Your task to perform on an android device: turn off priority inbox in the gmail app Image 0: 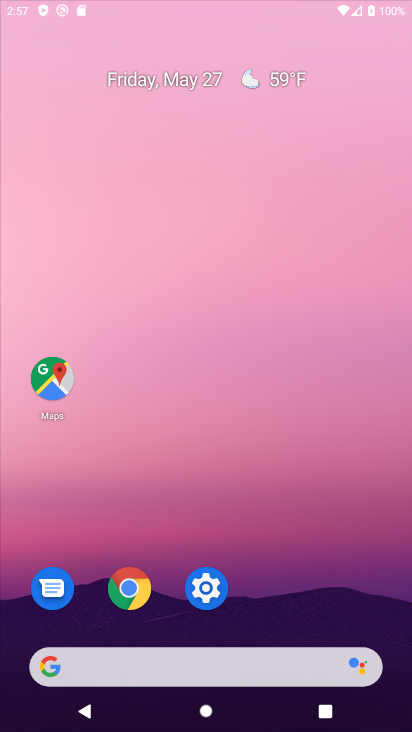
Step 0: click (191, 65)
Your task to perform on an android device: turn off priority inbox in the gmail app Image 1: 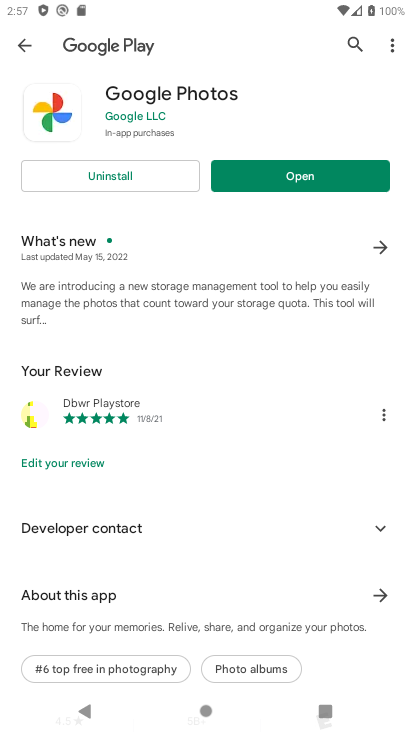
Step 1: press back button
Your task to perform on an android device: turn off priority inbox in the gmail app Image 2: 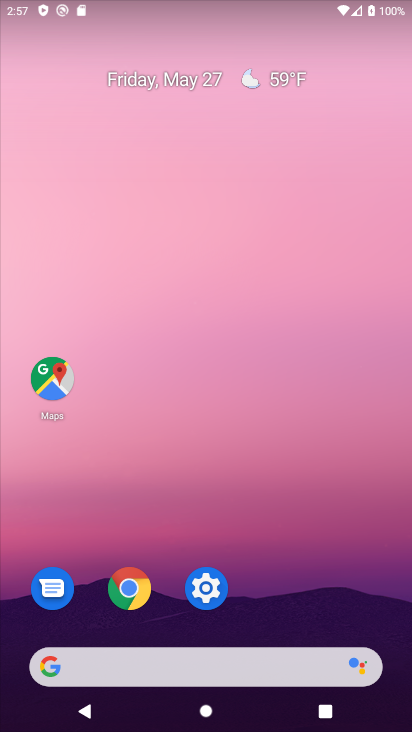
Step 2: drag from (275, 689) to (139, 12)
Your task to perform on an android device: turn off priority inbox in the gmail app Image 3: 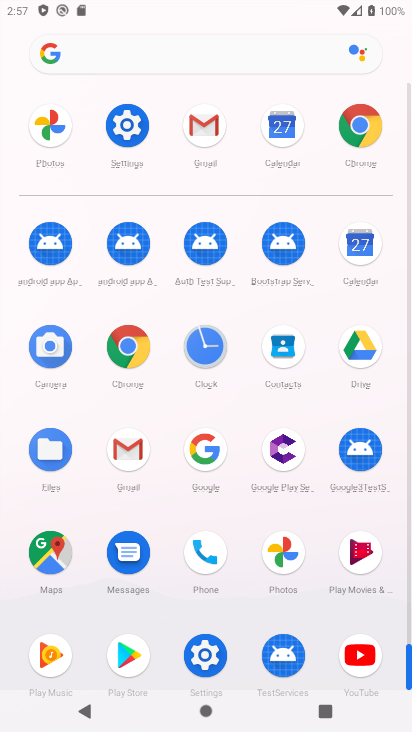
Step 3: click (129, 445)
Your task to perform on an android device: turn off priority inbox in the gmail app Image 4: 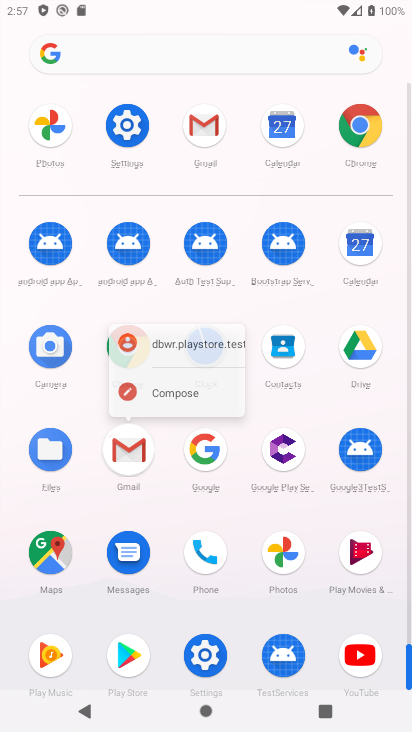
Step 4: click (129, 445)
Your task to perform on an android device: turn off priority inbox in the gmail app Image 5: 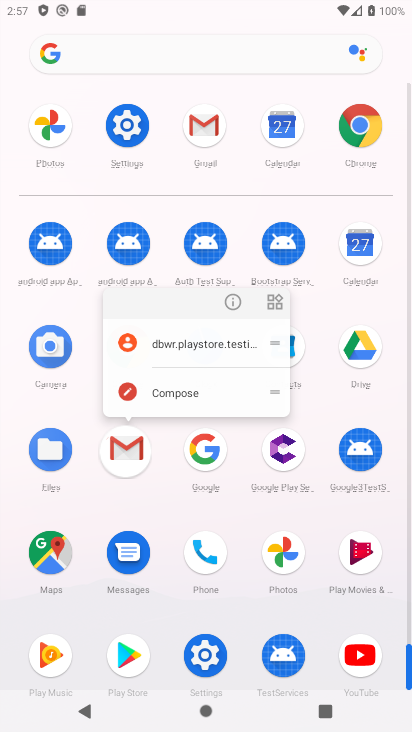
Step 5: click (125, 447)
Your task to perform on an android device: turn off priority inbox in the gmail app Image 6: 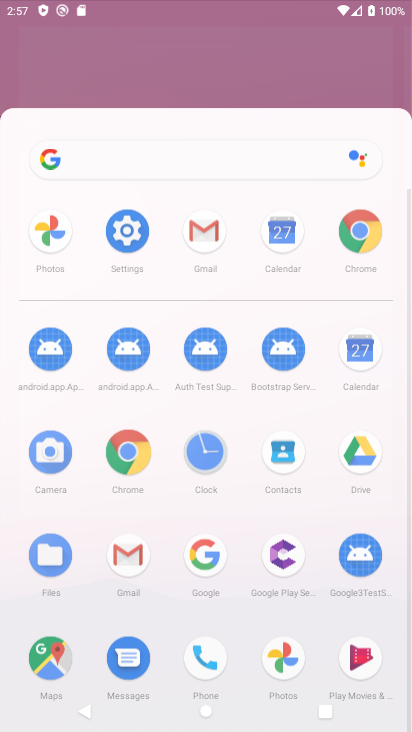
Step 6: click (121, 435)
Your task to perform on an android device: turn off priority inbox in the gmail app Image 7: 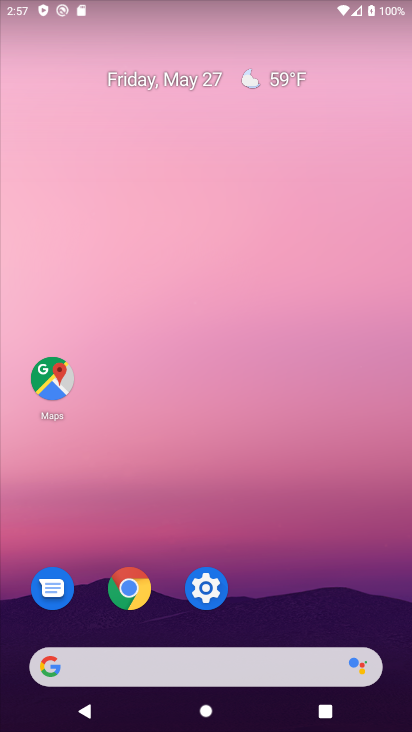
Step 7: click (124, 439)
Your task to perform on an android device: turn off priority inbox in the gmail app Image 8: 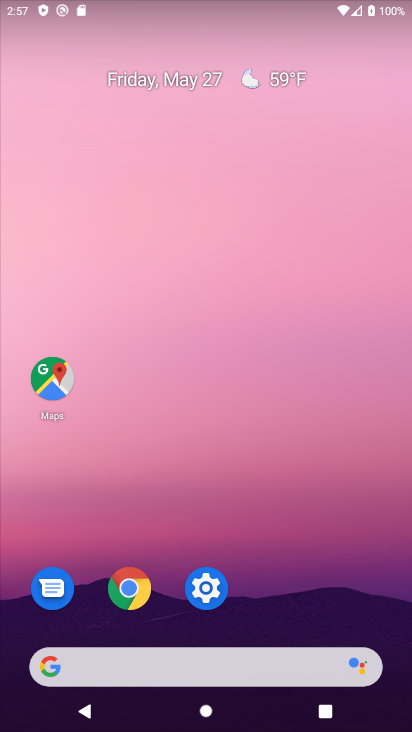
Step 8: press back button
Your task to perform on an android device: turn off priority inbox in the gmail app Image 9: 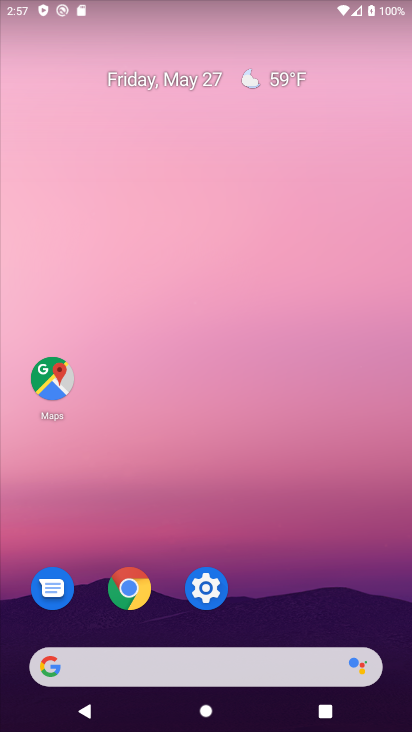
Step 9: drag from (303, 515) to (105, 101)
Your task to perform on an android device: turn off priority inbox in the gmail app Image 10: 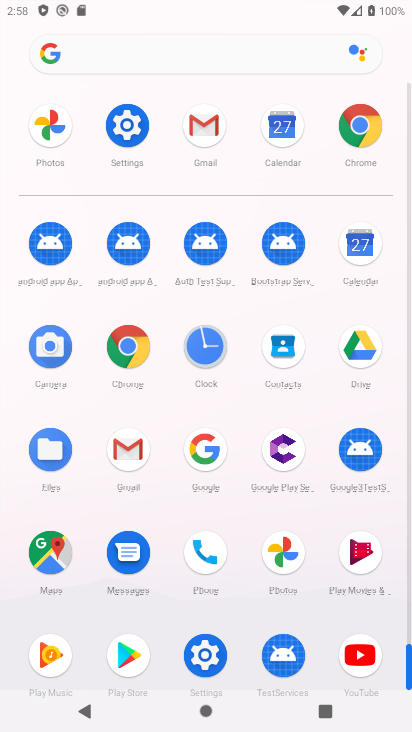
Step 10: click (123, 468)
Your task to perform on an android device: turn off priority inbox in the gmail app Image 11: 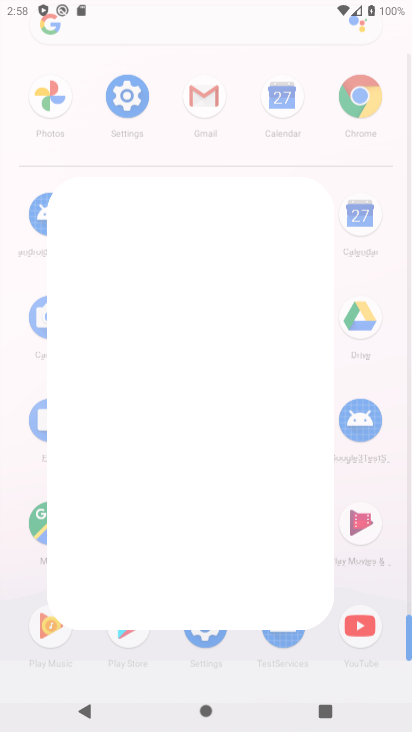
Step 11: click (123, 454)
Your task to perform on an android device: turn off priority inbox in the gmail app Image 12: 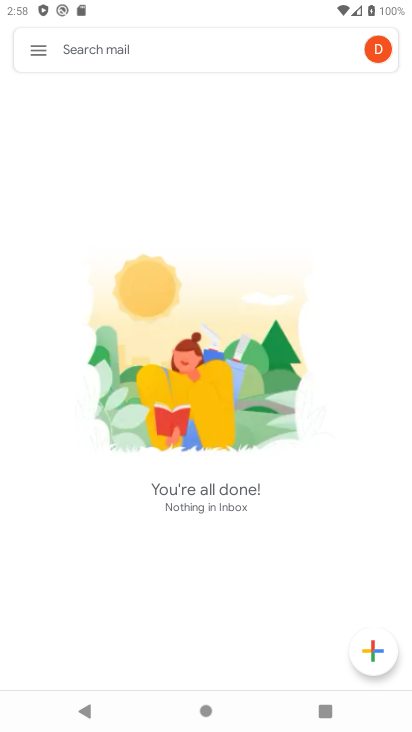
Step 12: click (125, 448)
Your task to perform on an android device: turn off priority inbox in the gmail app Image 13: 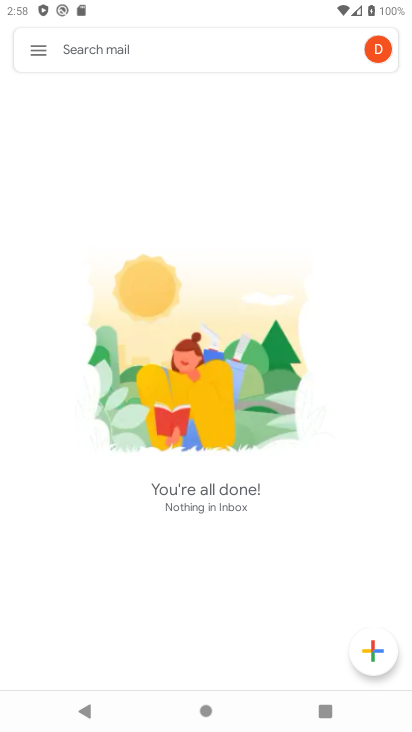
Step 13: click (36, 57)
Your task to perform on an android device: turn off priority inbox in the gmail app Image 14: 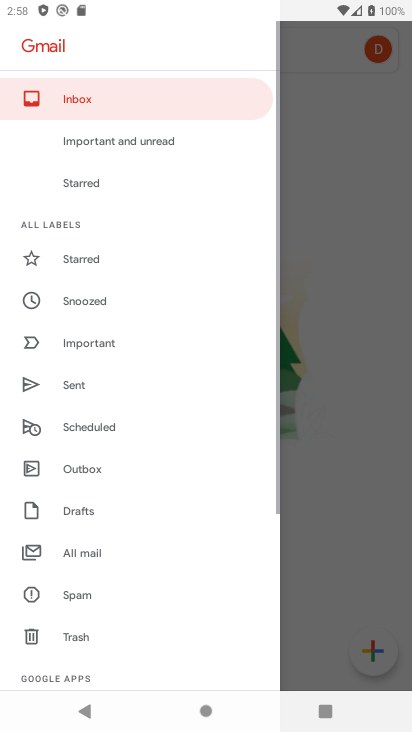
Step 14: click (42, 44)
Your task to perform on an android device: turn off priority inbox in the gmail app Image 15: 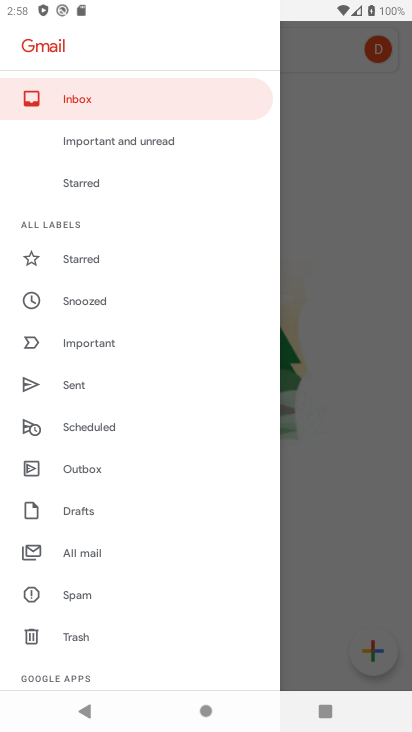
Step 15: drag from (58, 470) to (40, 188)
Your task to perform on an android device: turn off priority inbox in the gmail app Image 16: 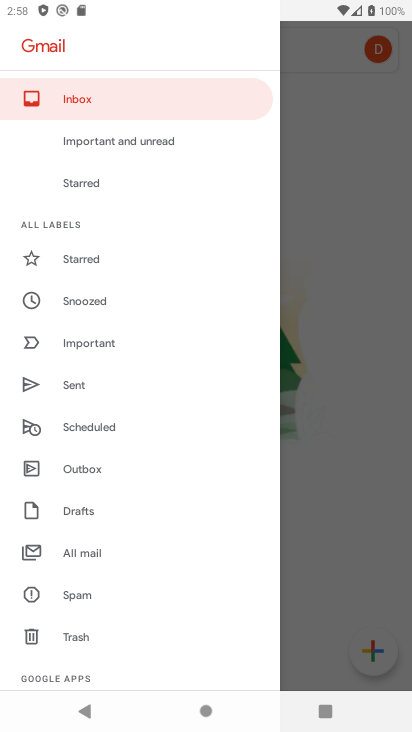
Step 16: drag from (128, 476) to (101, 214)
Your task to perform on an android device: turn off priority inbox in the gmail app Image 17: 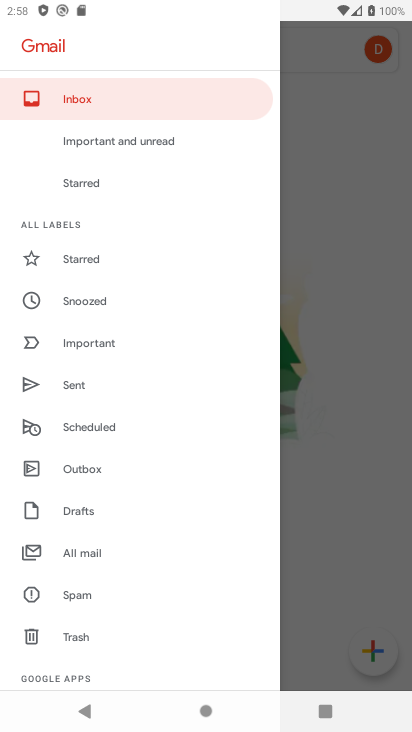
Step 17: drag from (118, 501) to (98, 102)
Your task to perform on an android device: turn off priority inbox in the gmail app Image 18: 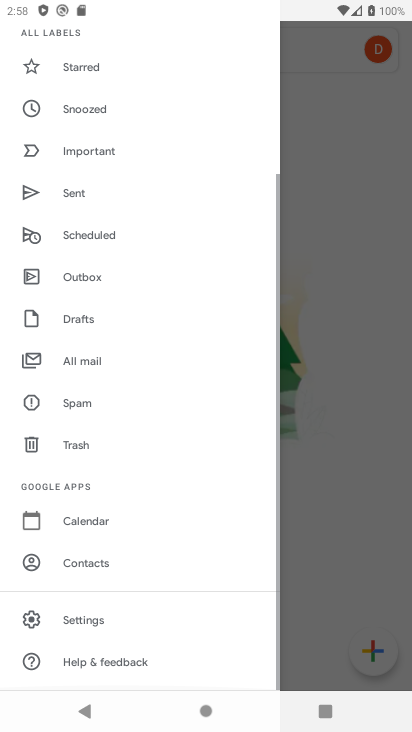
Step 18: drag from (63, 434) to (101, 109)
Your task to perform on an android device: turn off priority inbox in the gmail app Image 19: 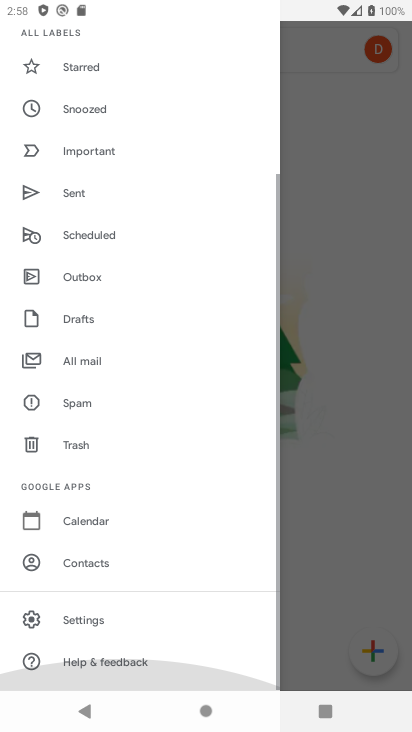
Step 19: click (190, 53)
Your task to perform on an android device: turn off priority inbox in the gmail app Image 20: 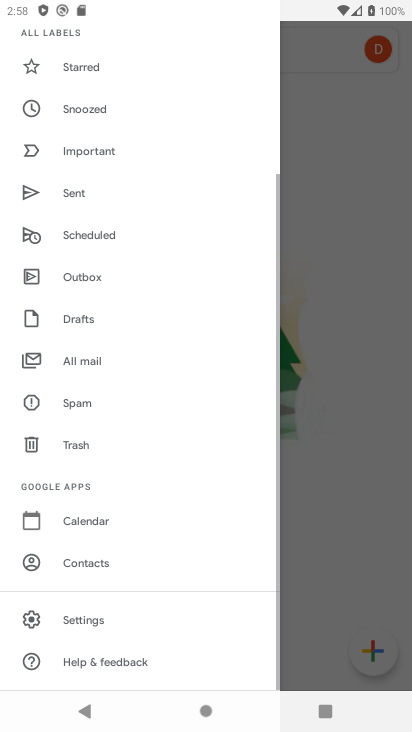
Step 20: drag from (74, 447) to (74, 90)
Your task to perform on an android device: turn off priority inbox in the gmail app Image 21: 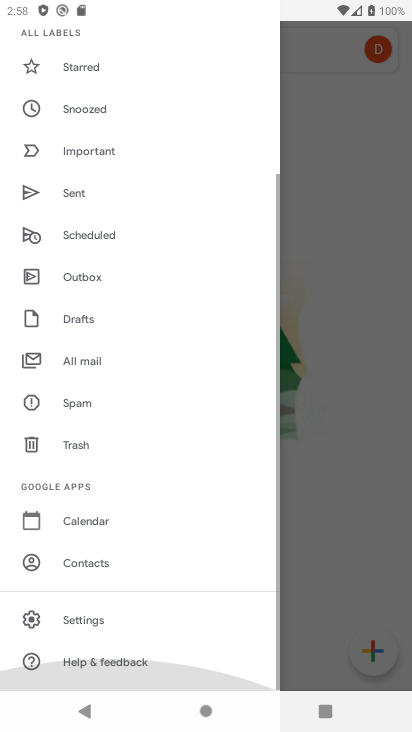
Step 21: drag from (51, 255) to (51, 123)
Your task to perform on an android device: turn off priority inbox in the gmail app Image 22: 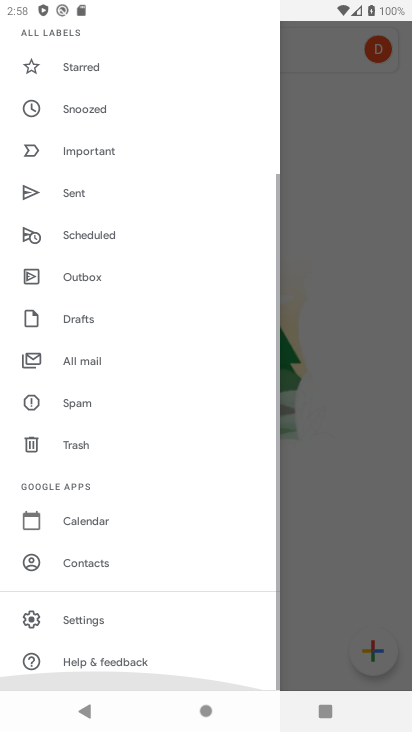
Step 22: drag from (101, 322) to (108, 77)
Your task to perform on an android device: turn off priority inbox in the gmail app Image 23: 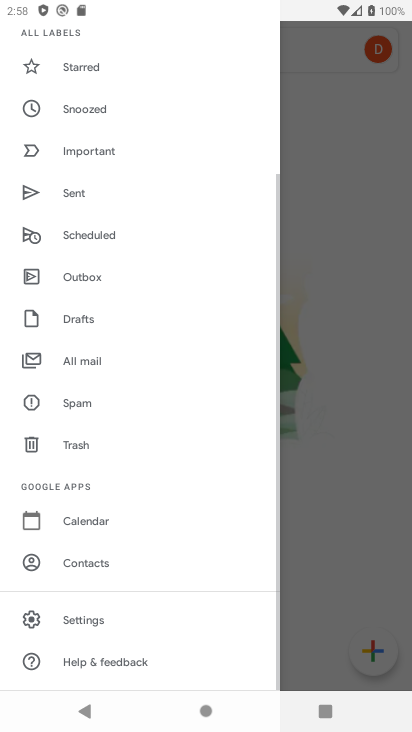
Step 23: click (80, 619)
Your task to perform on an android device: turn off priority inbox in the gmail app Image 24: 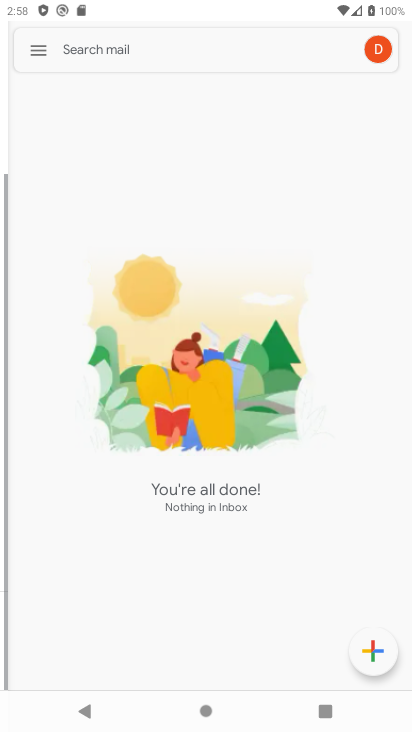
Step 24: click (80, 619)
Your task to perform on an android device: turn off priority inbox in the gmail app Image 25: 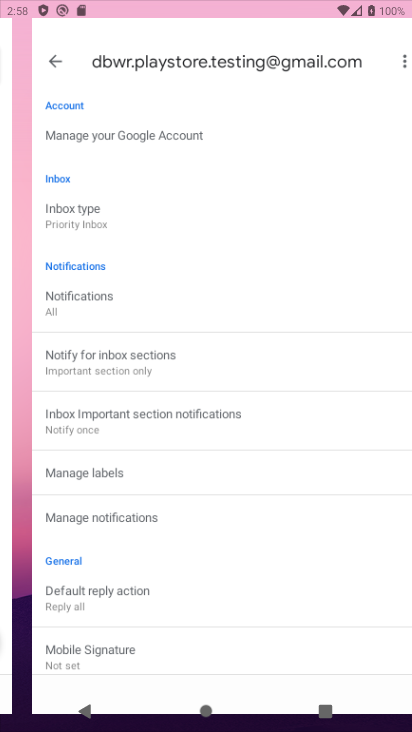
Step 25: click (81, 619)
Your task to perform on an android device: turn off priority inbox in the gmail app Image 26: 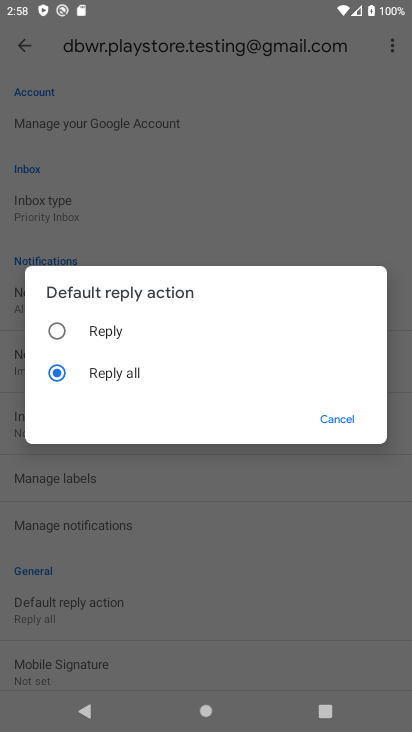
Step 26: click (335, 413)
Your task to perform on an android device: turn off priority inbox in the gmail app Image 27: 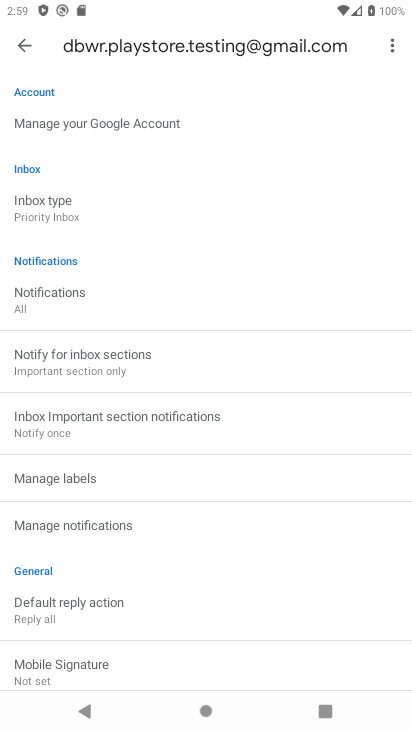
Step 27: click (39, 214)
Your task to perform on an android device: turn off priority inbox in the gmail app Image 28: 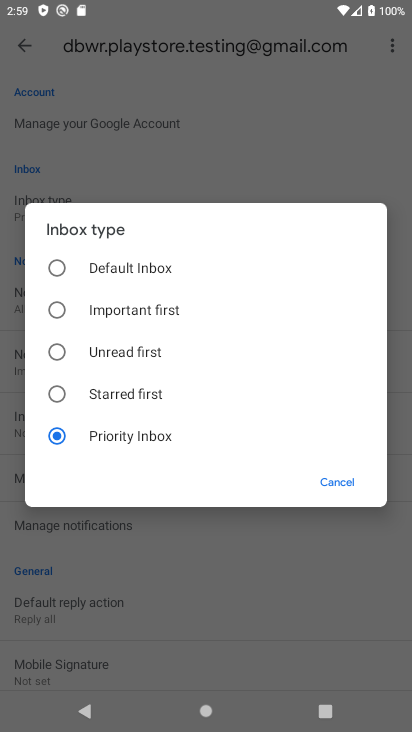
Step 28: click (61, 386)
Your task to perform on an android device: turn off priority inbox in the gmail app Image 29: 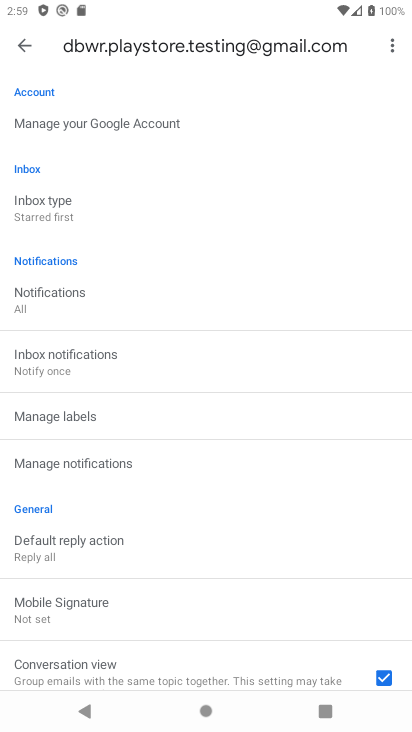
Step 29: task complete